Your task to perform on an android device: What is the recent news? Image 0: 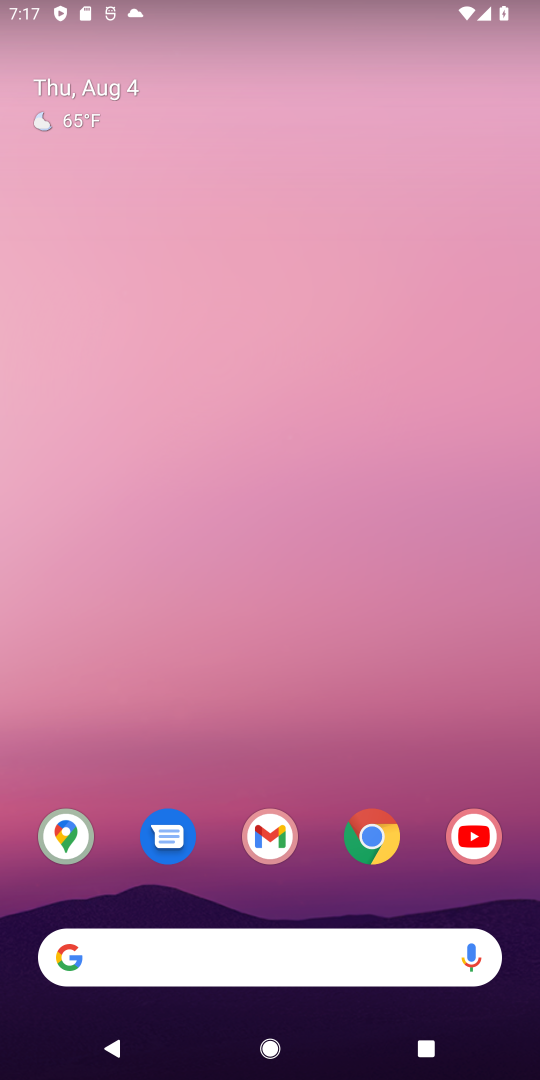
Step 0: click (188, 960)
Your task to perform on an android device: What is the recent news? Image 1: 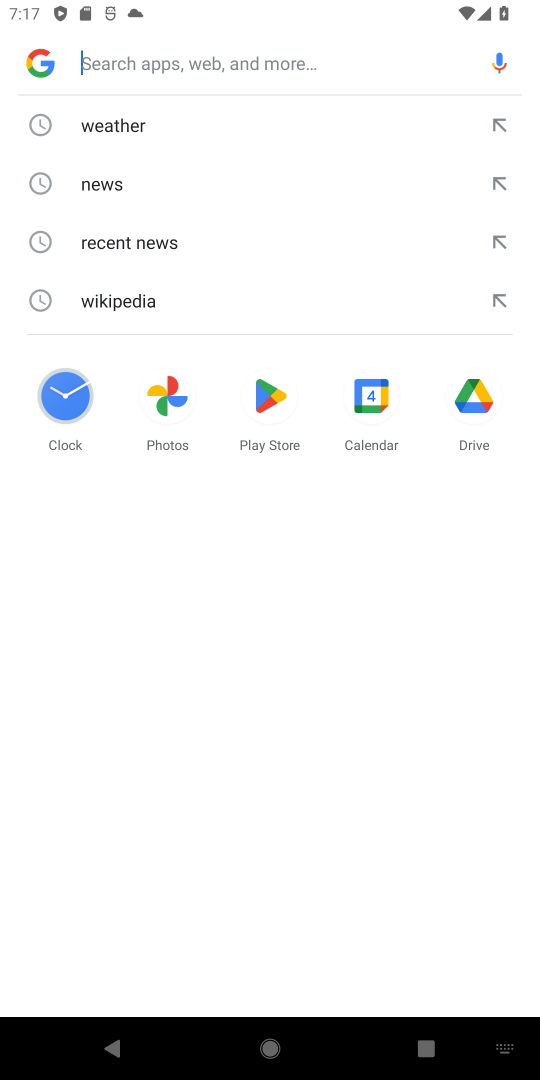
Step 1: click (133, 236)
Your task to perform on an android device: What is the recent news? Image 2: 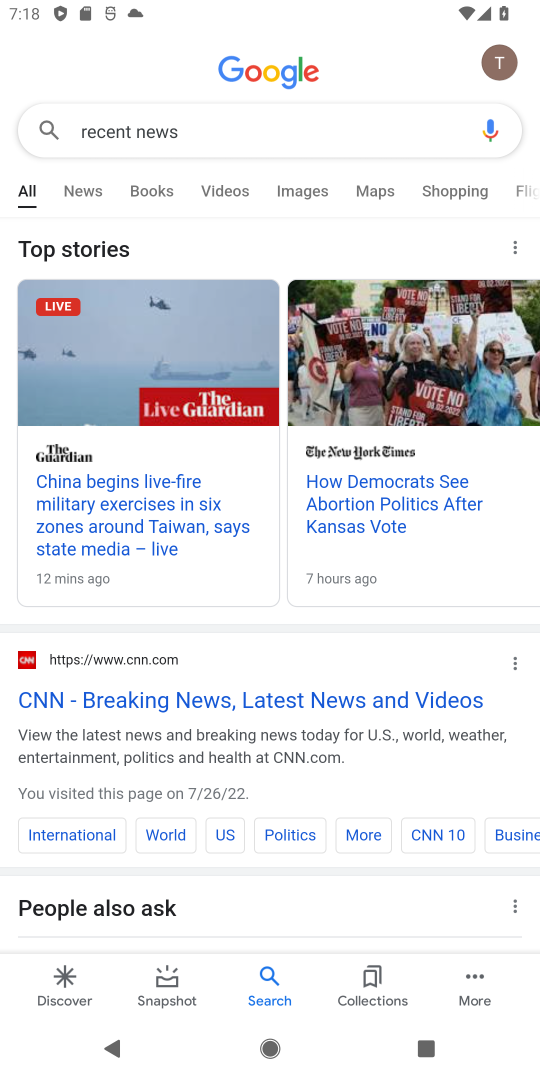
Step 2: task complete